Your task to perform on an android device: empty trash in google photos Image 0: 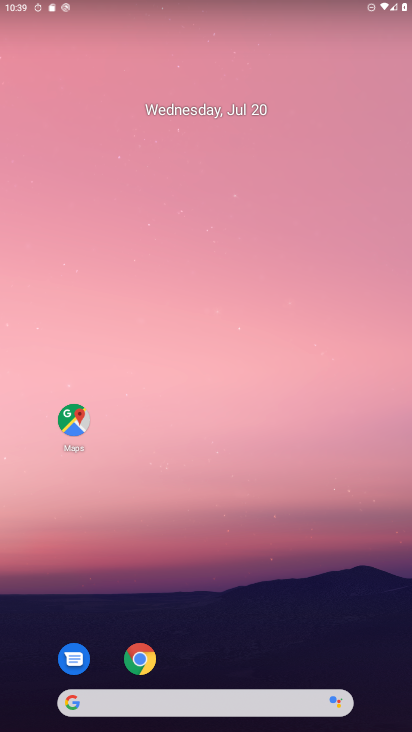
Step 0: drag from (314, 548) to (257, 120)
Your task to perform on an android device: empty trash in google photos Image 1: 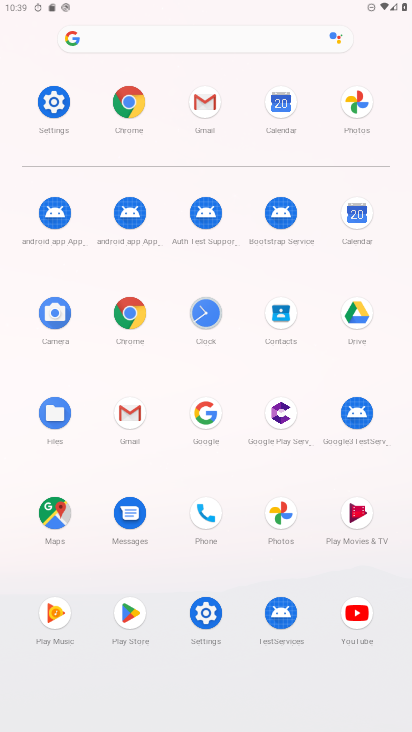
Step 1: click (281, 504)
Your task to perform on an android device: empty trash in google photos Image 2: 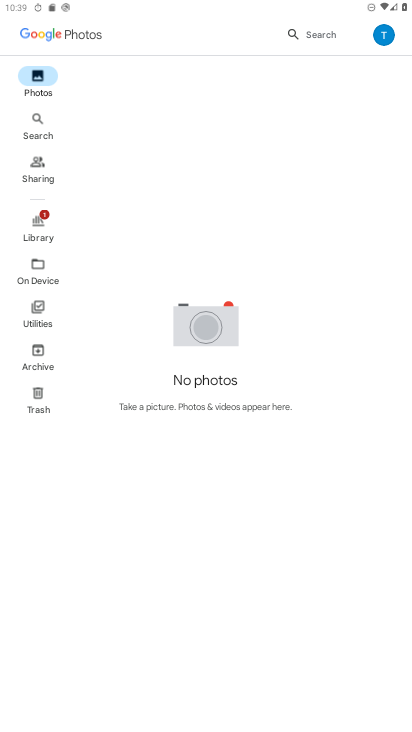
Step 2: click (33, 383)
Your task to perform on an android device: empty trash in google photos Image 3: 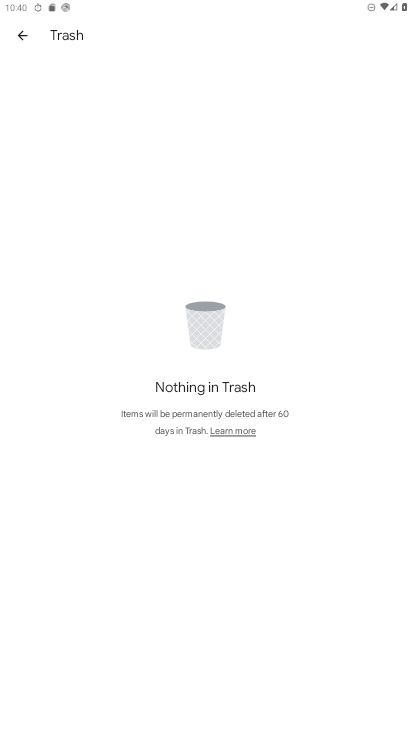
Step 3: task complete